Your task to perform on an android device: toggle notifications settings in the gmail app Image 0: 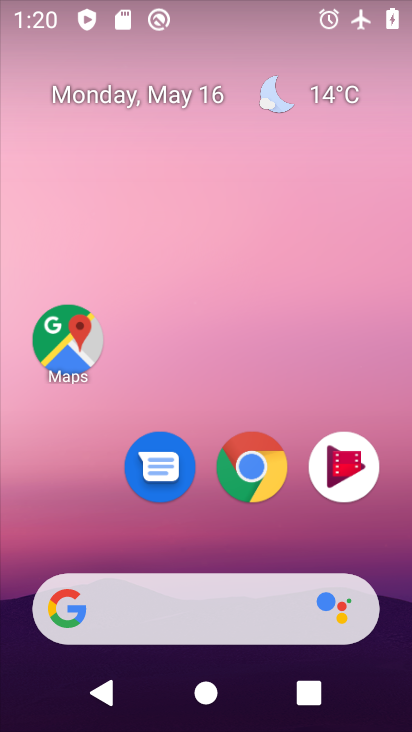
Step 0: drag from (209, 476) to (209, 213)
Your task to perform on an android device: toggle notifications settings in the gmail app Image 1: 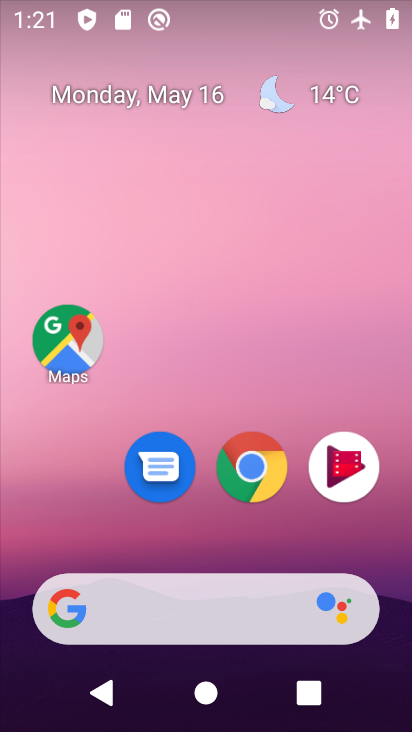
Step 1: drag from (277, 518) to (284, 117)
Your task to perform on an android device: toggle notifications settings in the gmail app Image 2: 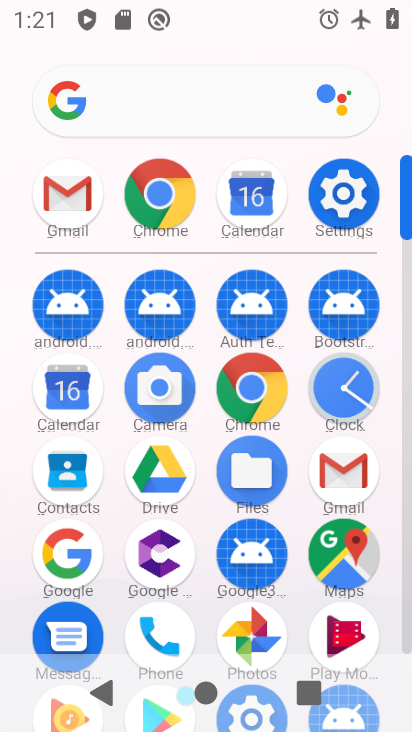
Step 2: click (352, 452)
Your task to perform on an android device: toggle notifications settings in the gmail app Image 3: 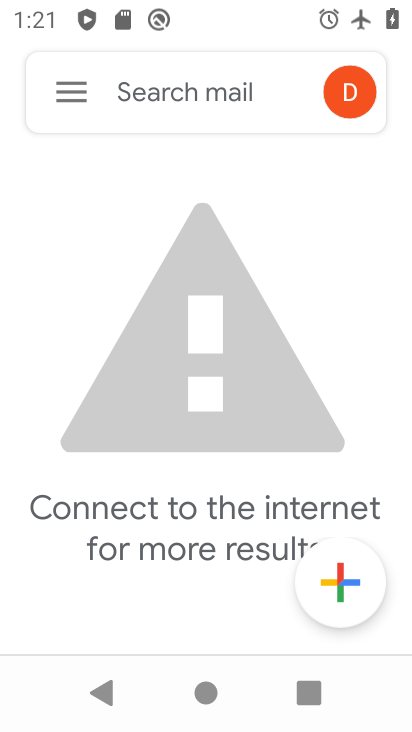
Step 3: click (46, 85)
Your task to perform on an android device: toggle notifications settings in the gmail app Image 4: 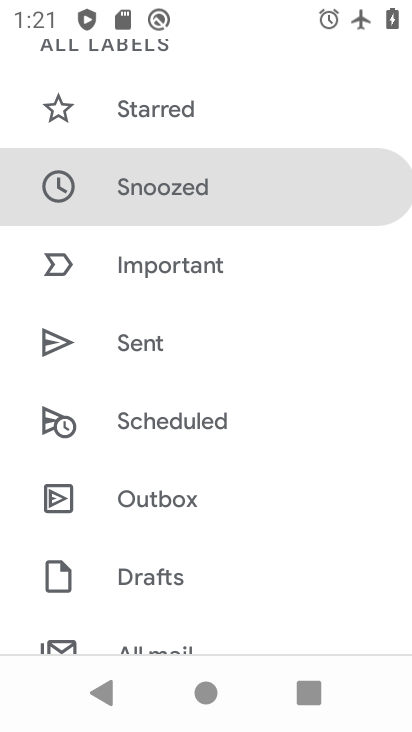
Step 4: drag from (179, 579) to (177, 180)
Your task to perform on an android device: toggle notifications settings in the gmail app Image 5: 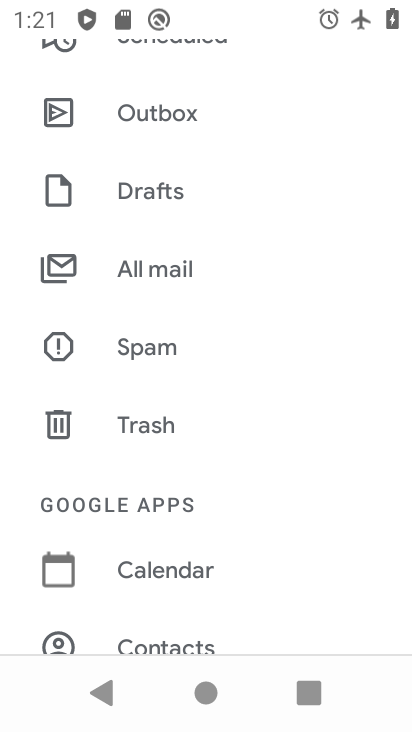
Step 5: drag from (227, 534) to (256, 193)
Your task to perform on an android device: toggle notifications settings in the gmail app Image 6: 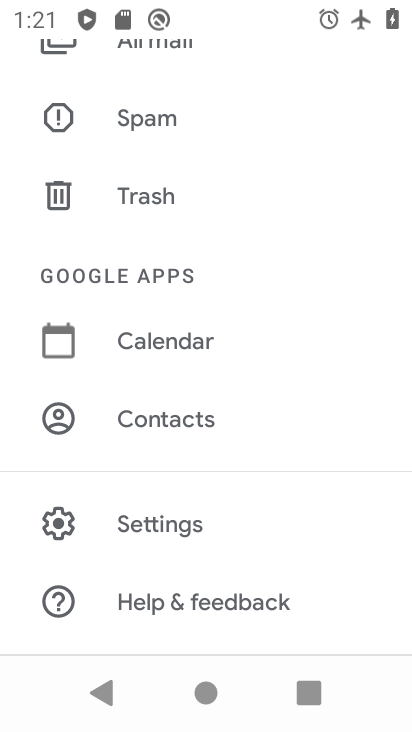
Step 6: click (126, 515)
Your task to perform on an android device: toggle notifications settings in the gmail app Image 7: 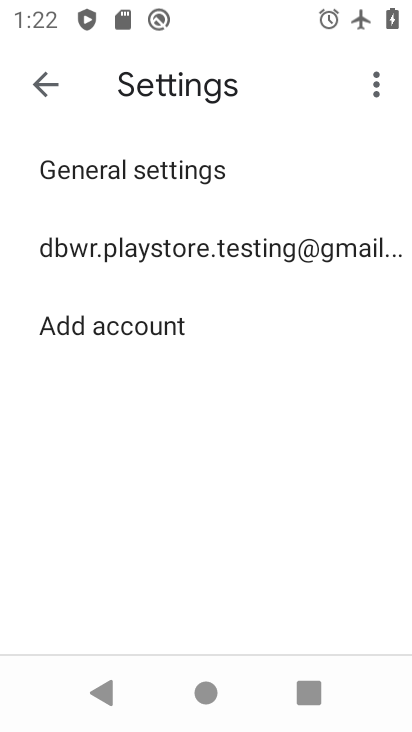
Step 7: click (176, 241)
Your task to perform on an android device: toggle notifications settings in the gmail app Image 8: 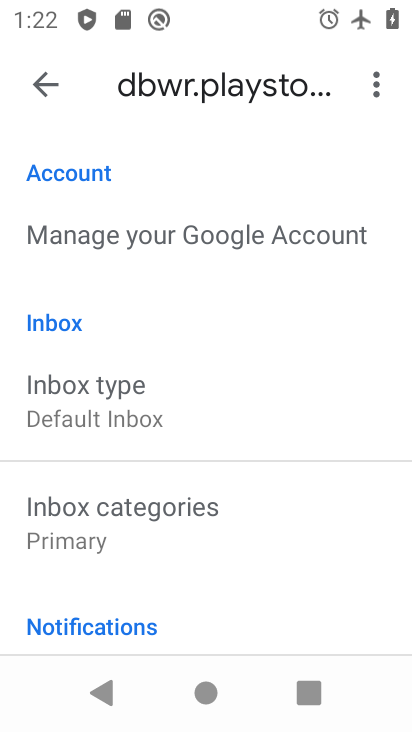
Step 8: drag from (193, 557) to (205, 139)
Your task to perform on an android device: toggle notifications settings in the gmail app Image 9: 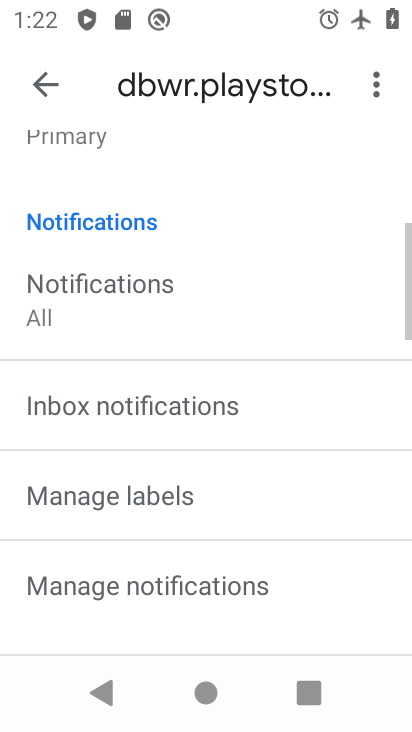
Step 9: drag from (207, 590) to (172, 232)
Your task to perform on an android device: toggle notifications settings in the gmail app Image 10: 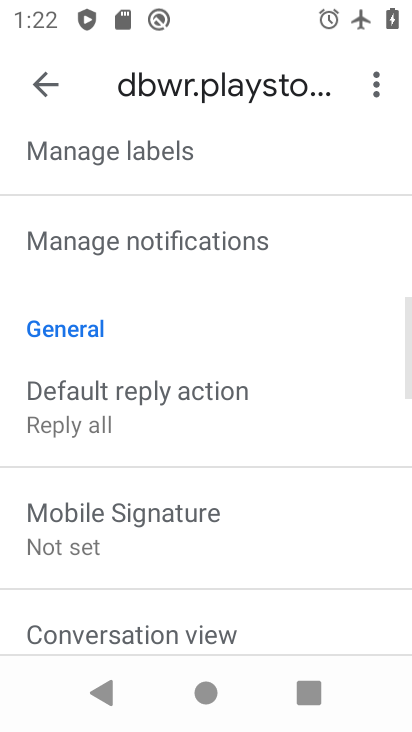
Step 10: drag from (187, 569) to (232, 226)
Your task to perform on an android device: toggle notifications settings in the gmail app Image 11: 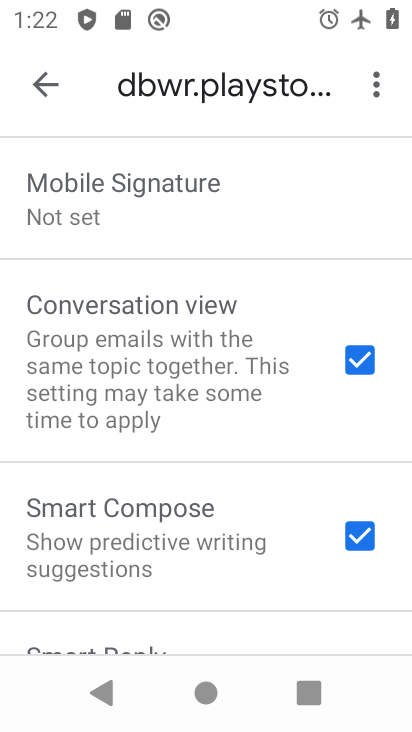
Step 11: drag from (180, 534) to (192, 630)
Your task to perform on an android device: toggle notifications settings in the gmail app Image 12: 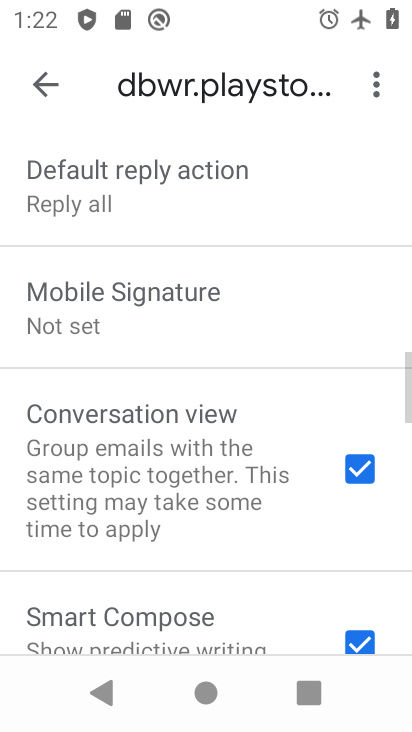
Step 12: drag from (144, 232) to (143, 594)
Your task to perform on an android device: toggle notifications settings in the gmail app Image 13: 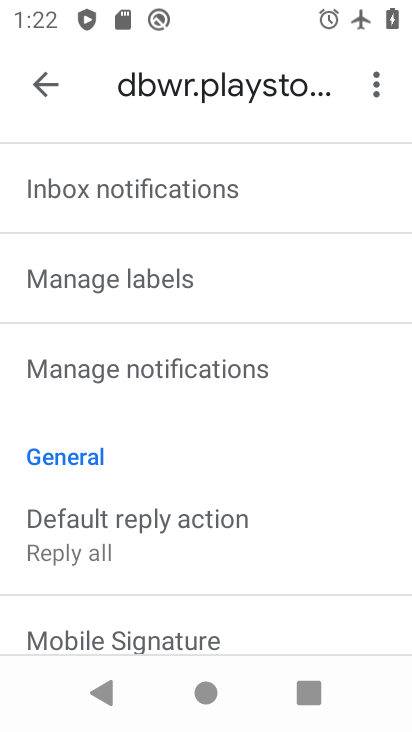
Step 13: drag from (259, 633) to (219, 667)
Your task to perform on an android device: toggle notifications settings in the gmail app Image 14: 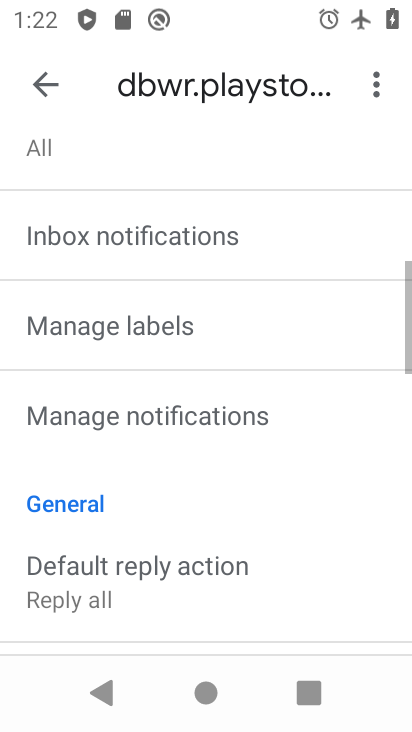
Step 14: drag from (185, 294) to (187, 554)
Your task to perform on an android device: toggle notifications settings in the gmail app Image 15: 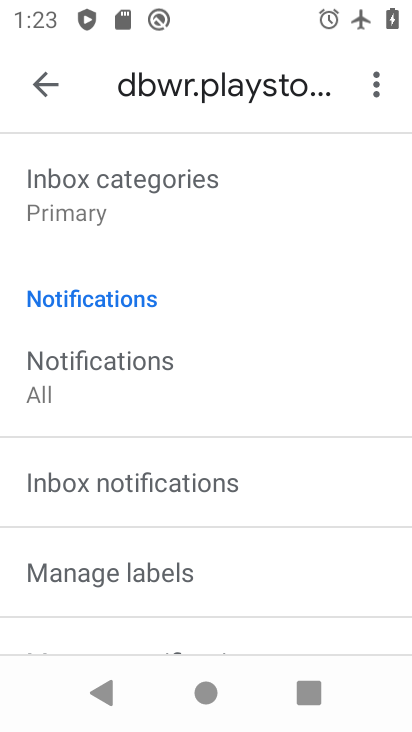
Step 15: click (142, 381)
Your task to perform on an android device: toggle notifications settings in the gmail app Image 16: 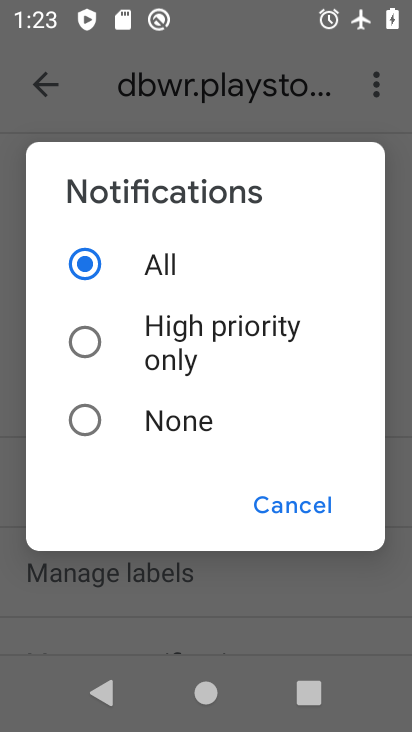
Step 16: click (157, 465)
Your task to perform on an android device: toggle notifications settings in the gmail app Image 17: 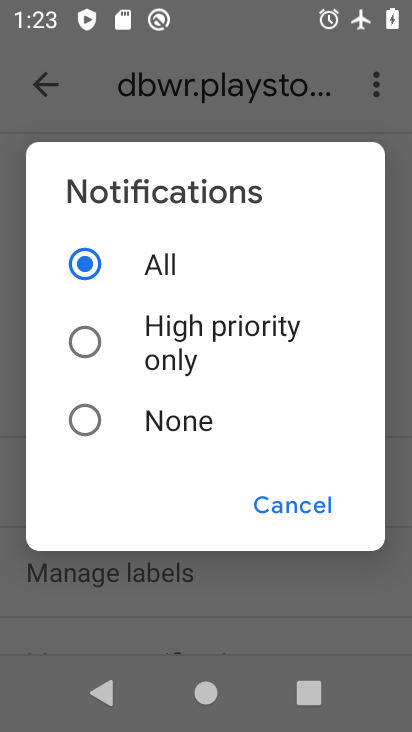
Step 17: task complete